Your task to perform on an android device: Open battery settings Image 0: 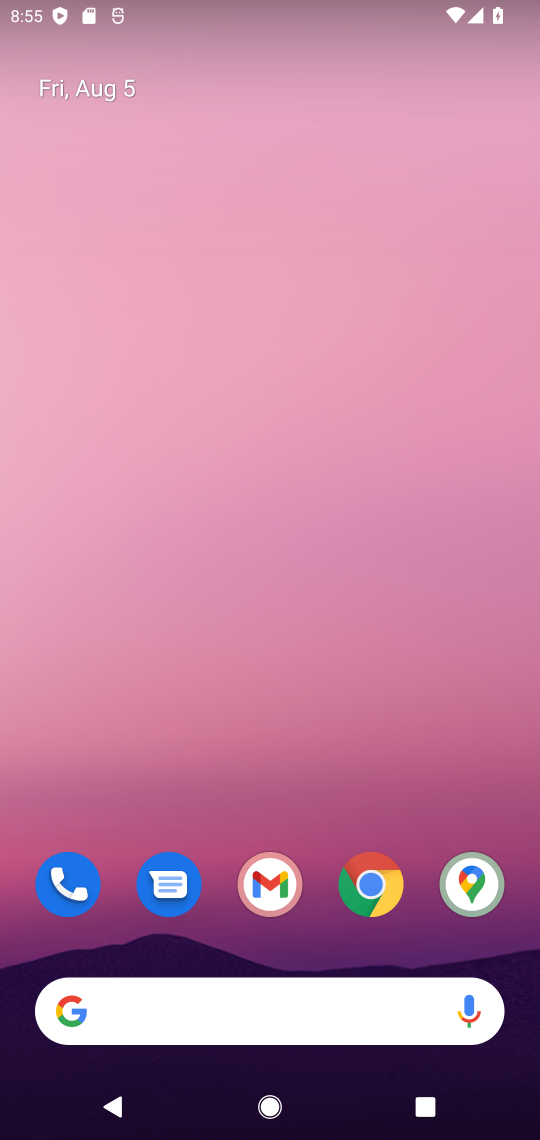
Step 0: click (137, 138)
Your task to perform on an android device: Open battery settings Image 1: 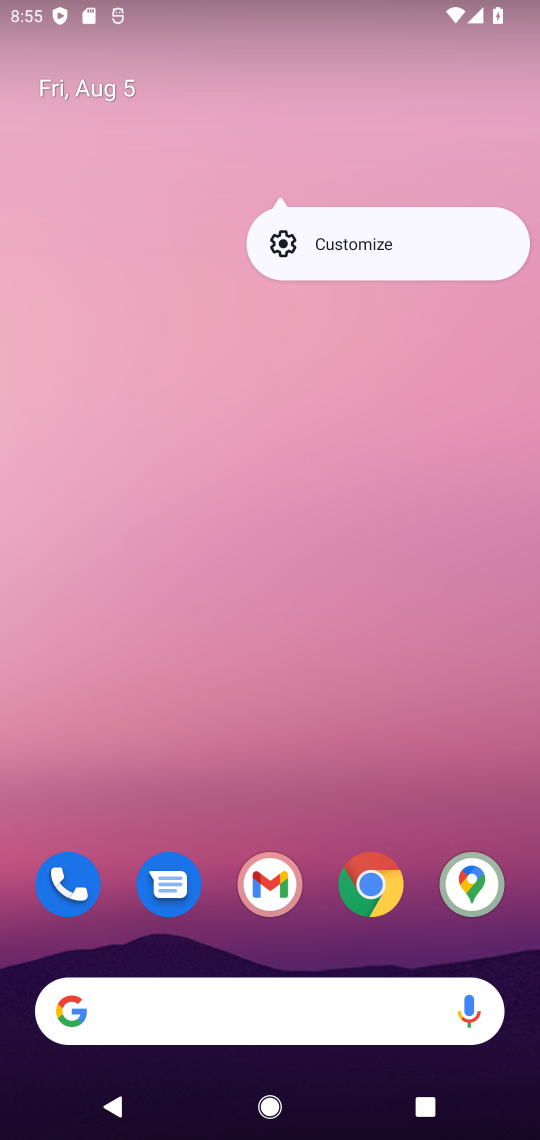
Step 1: click (299, 788)
Your task to perform on an android device: Open battery settings Image 2: 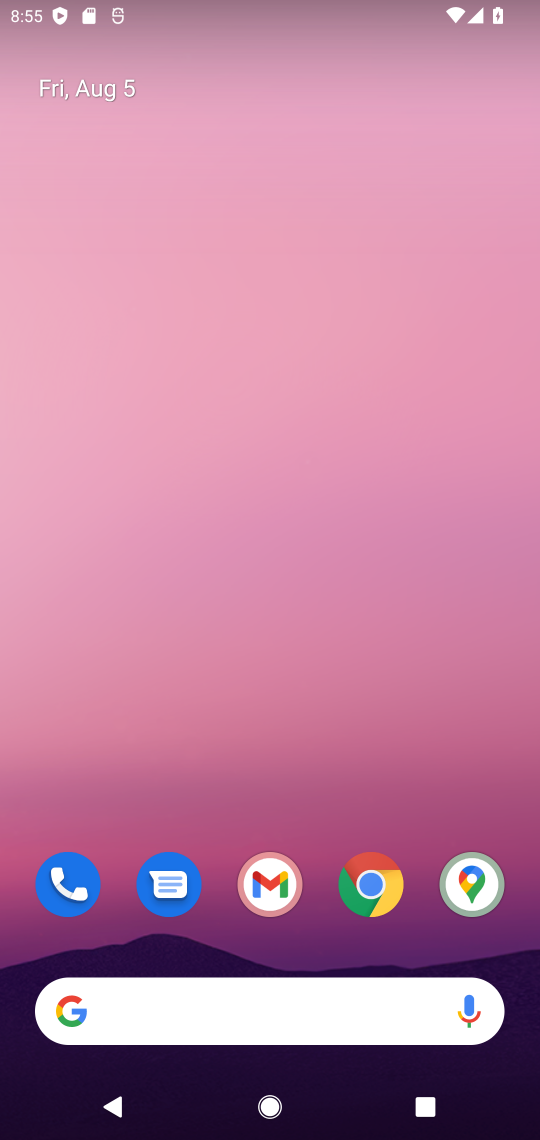
Step 2: drag from (300, 455) to (324, 95)
Your task to perform on an android device: Open battery settings Image 3: 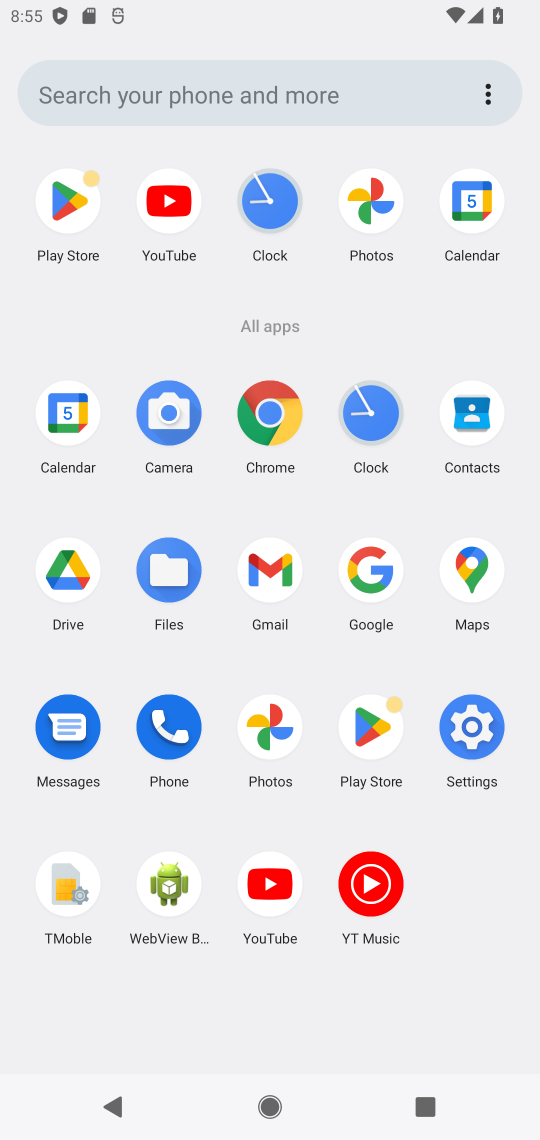
Step 3: click (473, 747)
Your task to perform on an android device: Open battery settings Image 4: 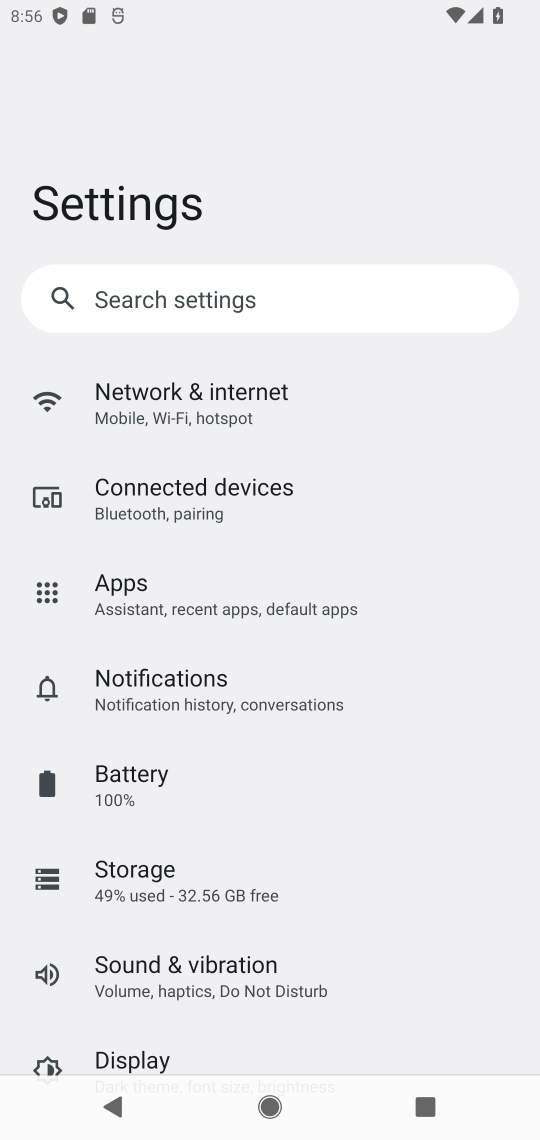
Step 4: click (156, 770)
Your task to perform on an android device: Open battery settings Image 5: 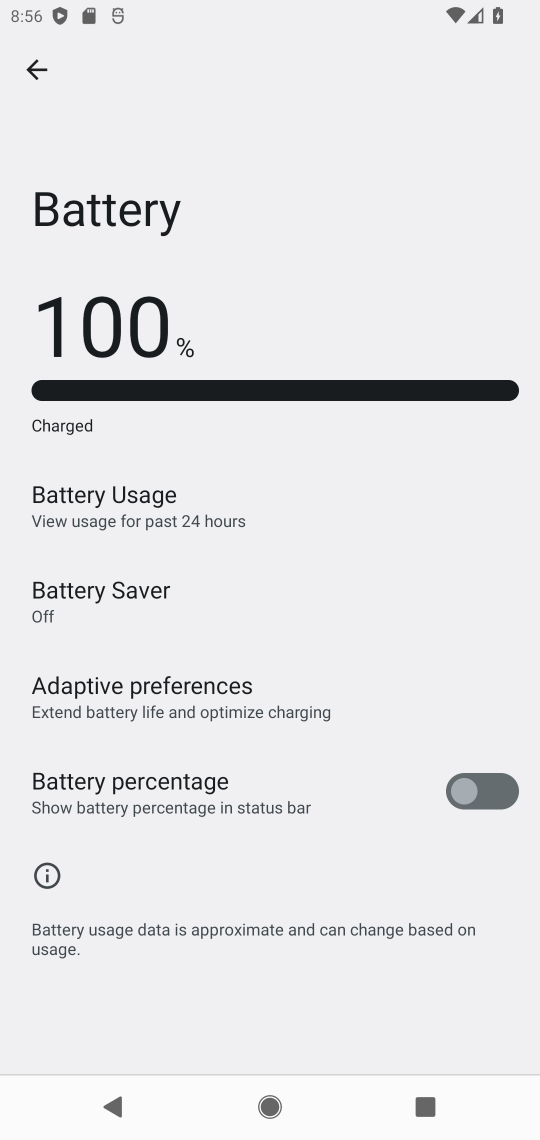
Step 5: task complete